Your task to perform on an android device: visit the assistant section in the google photos Image 0: 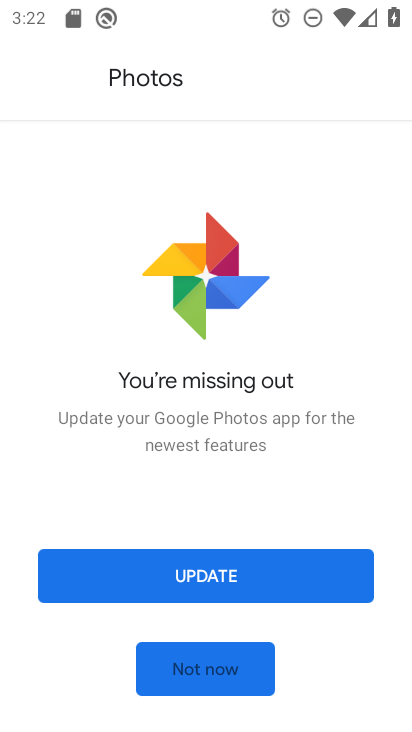
Step 0: press home button
Your task to perform on an android device: visit the assistant section in the google photos Image 1: 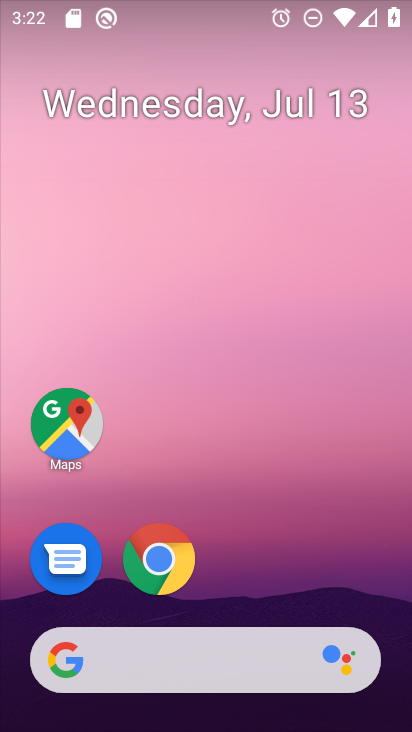
Step 1: drag from (300, 563) to (335, 149)
Your task to perform on an android device: visit the assistant section in the google photos Image 2: 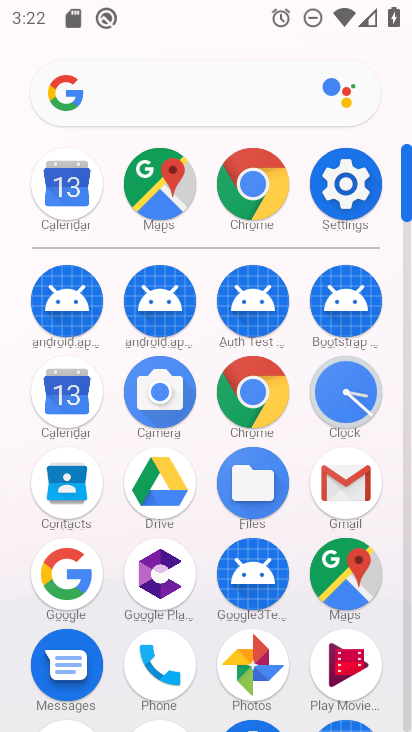
Step 2: click (260, 661)
Your task to perform on an android device: visit the assistant section in the google photos Image 3: 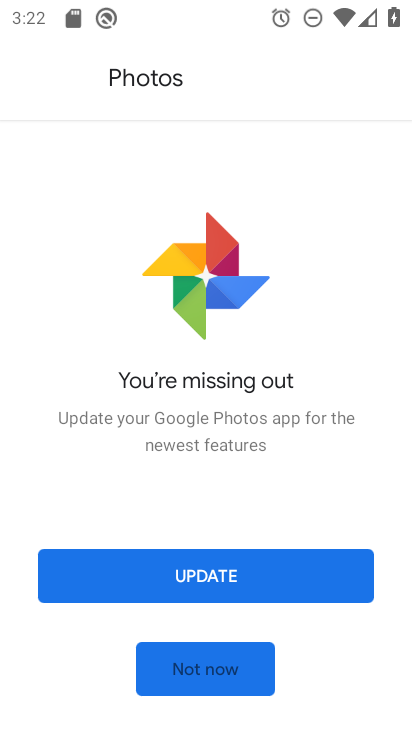
Step 3: click (263, 573)
Your task to perform on an android device: visit the assistant section in the google photos Image 4: 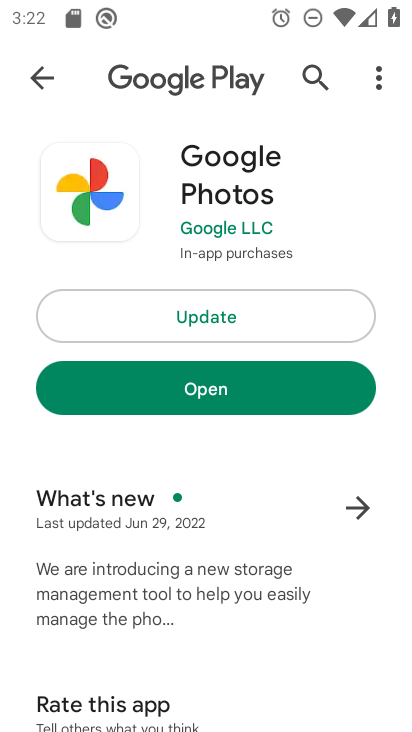
Step 4: click (276, 316)
Your task to perform on an android device: visit the assistant section in the google photos Image 5: 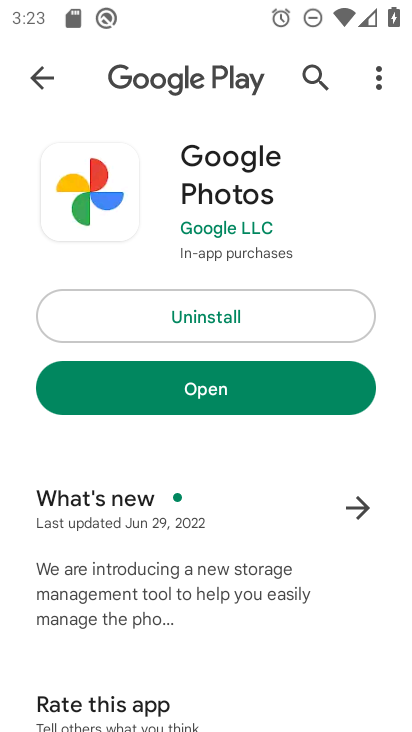
Step 5: click (232, 387)
Your task to perform on an android device: visit the assistant section in the google photos Image 6: 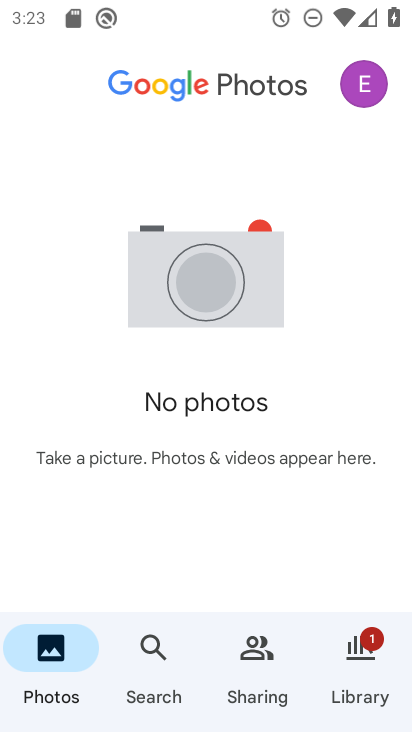
Step 6: task complete